Your task to perform on an android device: check storage Image 0: 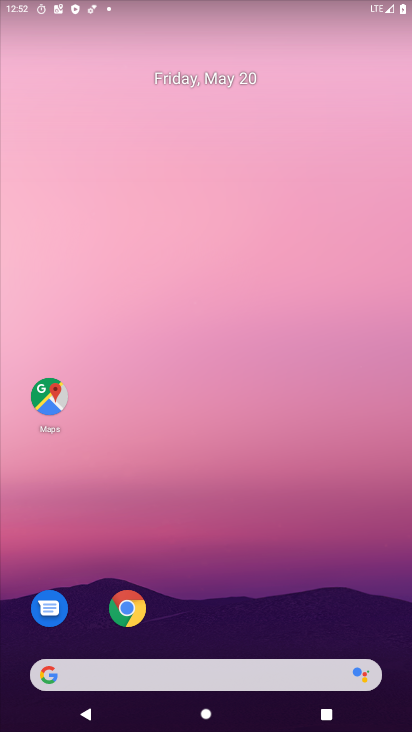
Step 0: drag from (324, 604) to (326, 115)
Your task to perform on an android device: check storage Image 1: 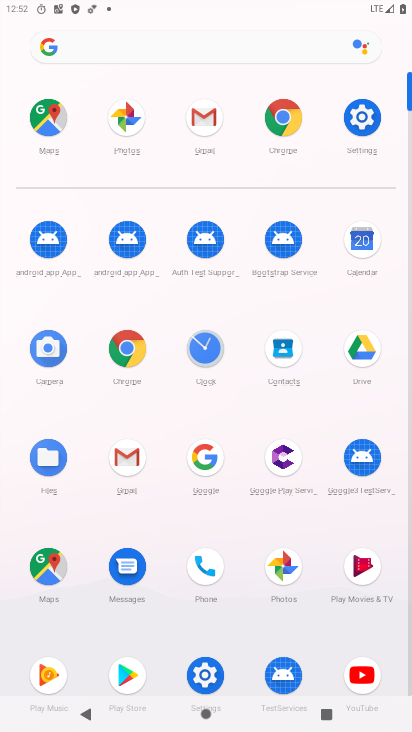
Step 1: click (205, 672)
Your task to perform on an android device: check storage Image 2: 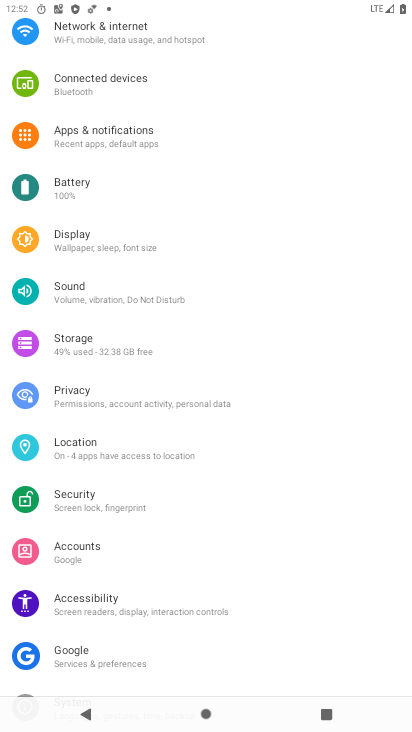
Step 2: click (59, 343)
Your task to perform on an android device: check storage Image 3: 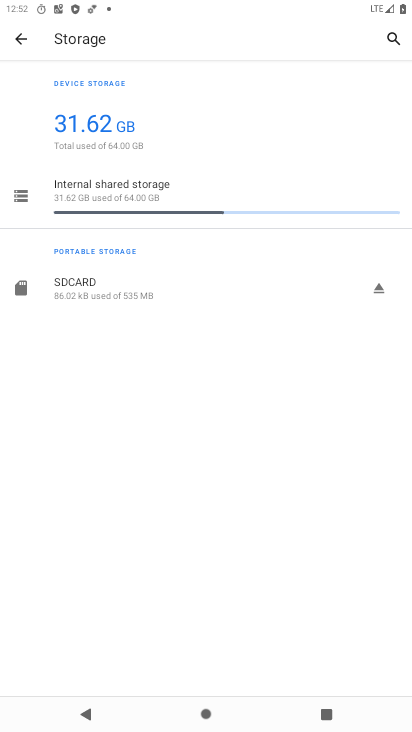
Step 3: click (25, 203)
Your task to perform on an android device: check storage Image 4: 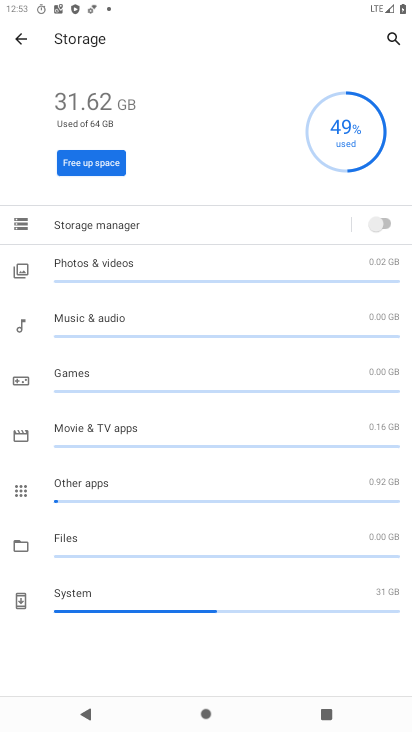
Step 4: task complete